Your task to perform on an android device: Search for custom wallets on Etsy. Image 0: 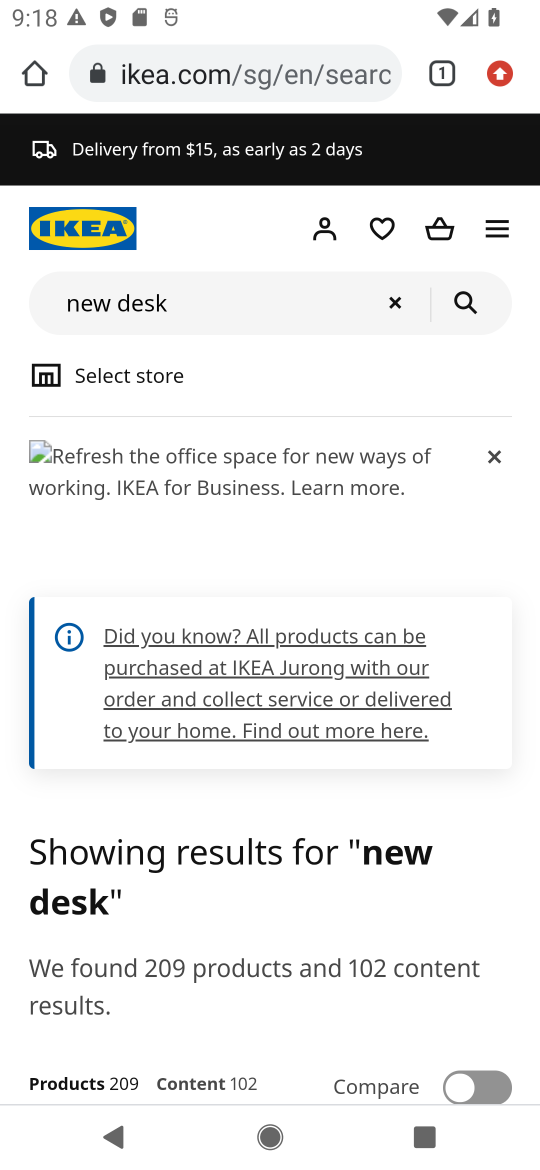
Step 0: press home button
Your task to perform on an android device: Search for custom wallets on Etsy. Image 1: 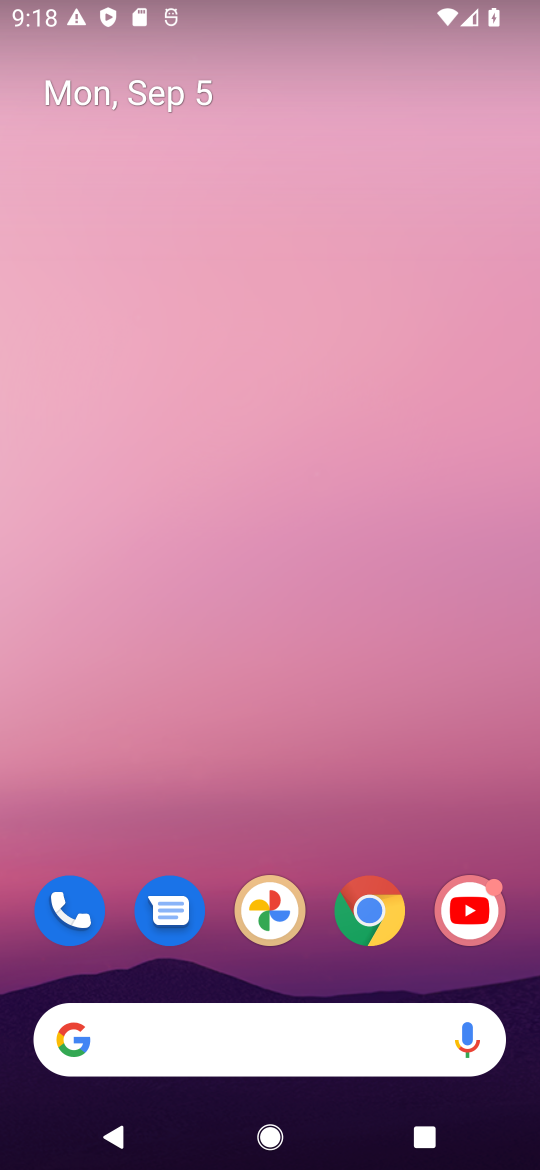
Step 1: click (377, 937)
Your task to perform on an android device: Search for custom wallets on Etsy. Image 2: 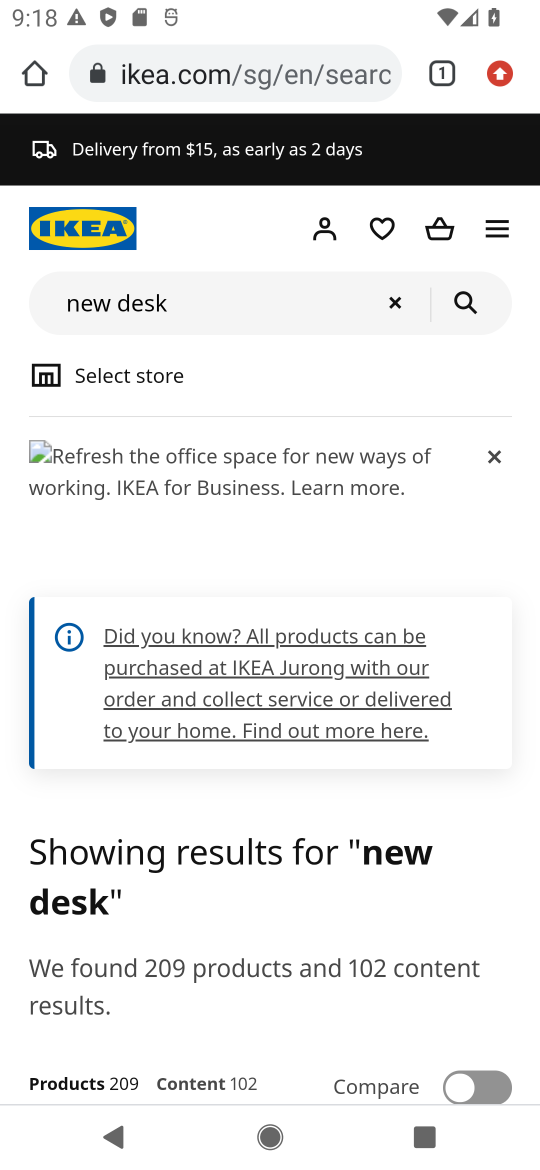
Step 2: click (281, 77)
Your task to perform on an android device: Search for custom wallets on Etsy. Image 3: 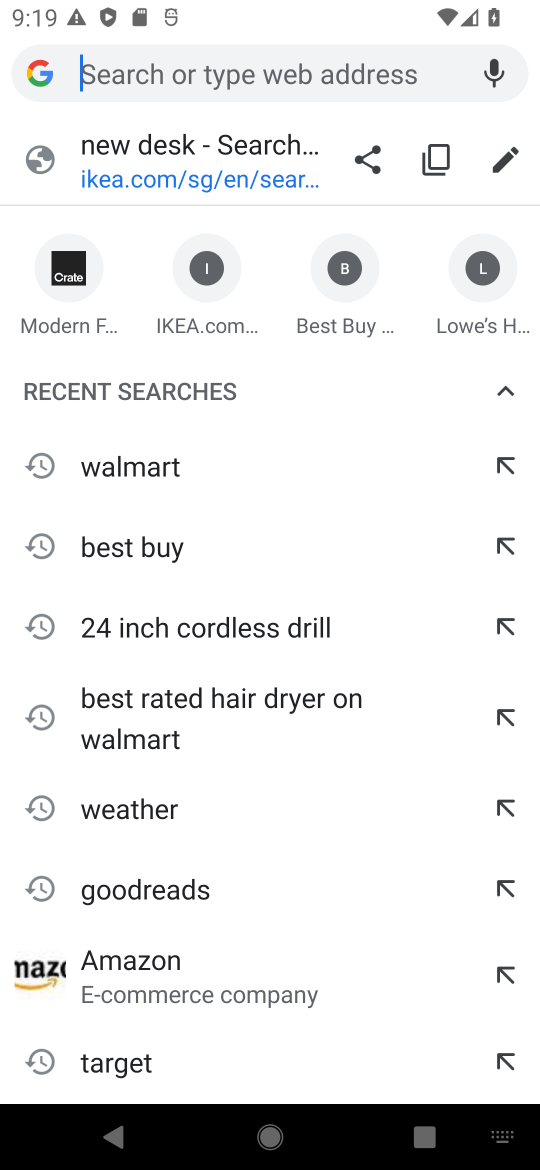
Step 3: type "etsy"
Your task to perform on an android device: Search for custom wallets on Etsy. Image 4: 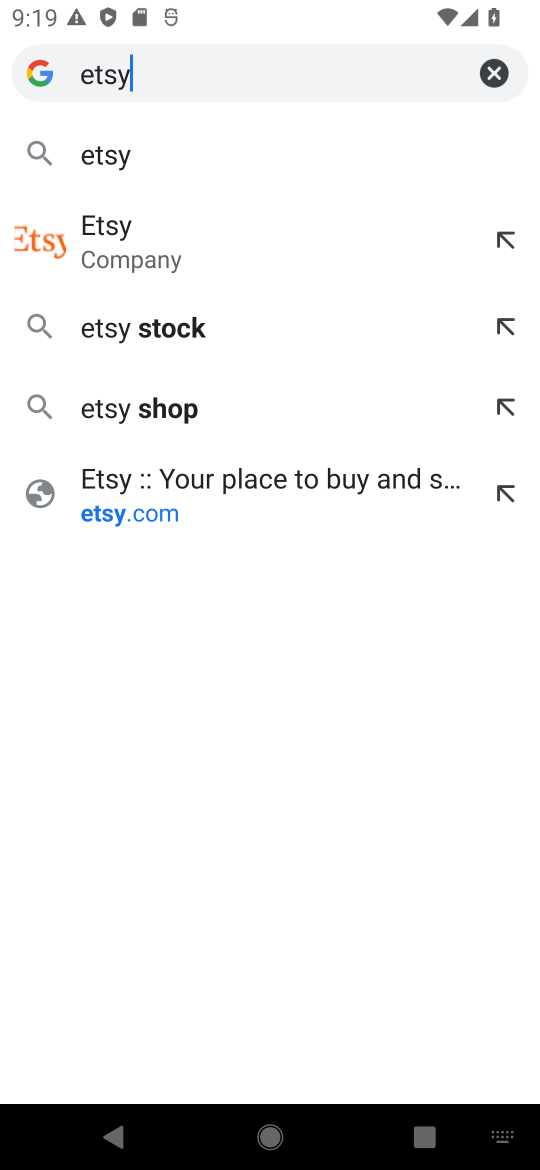
Step 4: click (170, 485)
Your task to perform on an android device: Search for custom wallets on Etsy. Image 5: 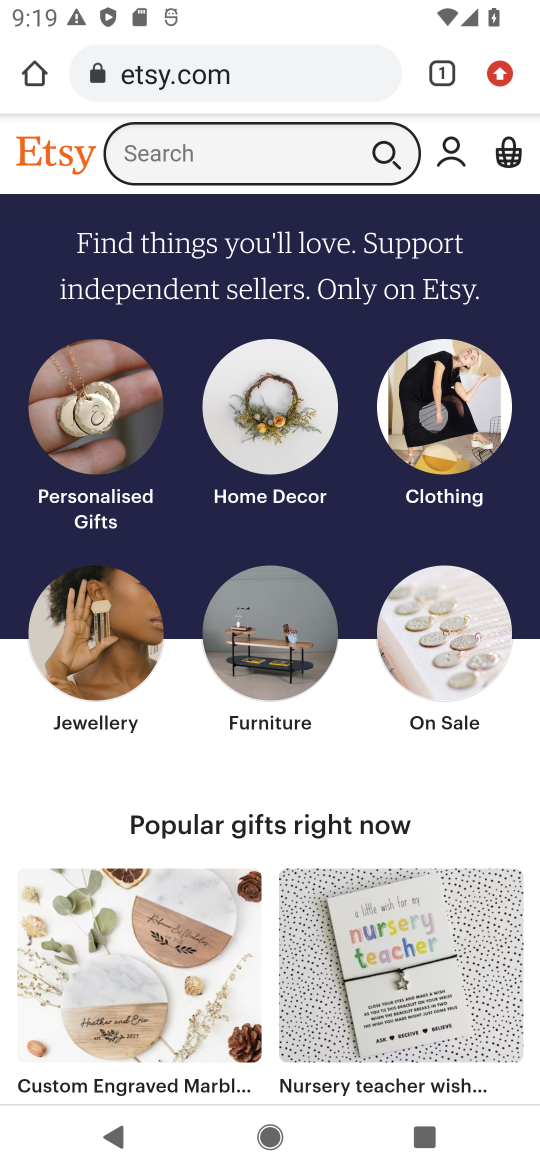
Step 5: click (238, 157)
Your task to perform on an android device: Search for custom wallets on Etsy. Image 6: 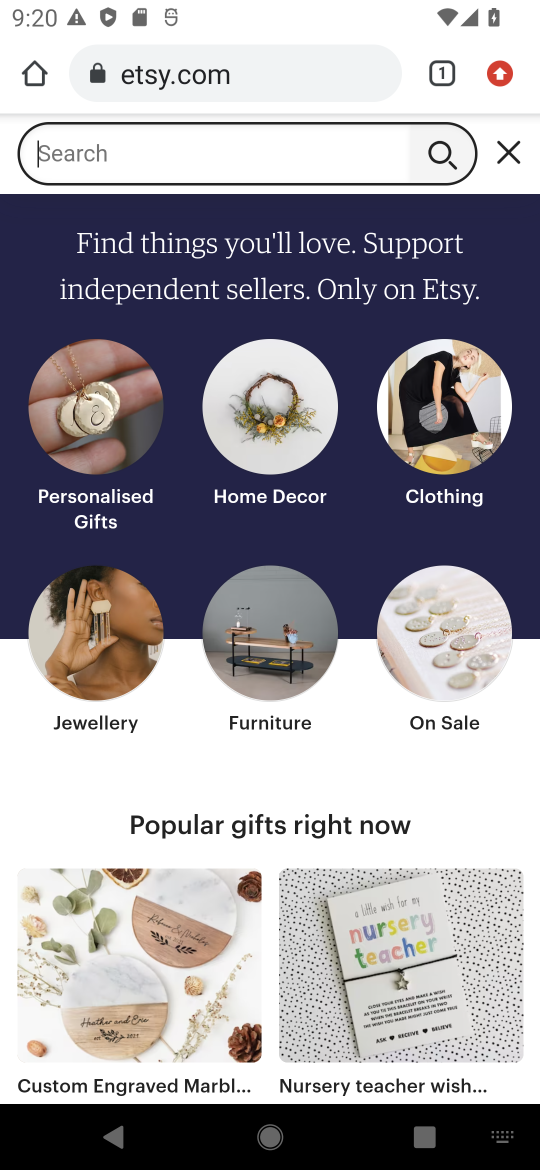
Step 6: click (275, 147)
Your task to perform on an android device: Search for custom wallets on Etsy. Image 7: 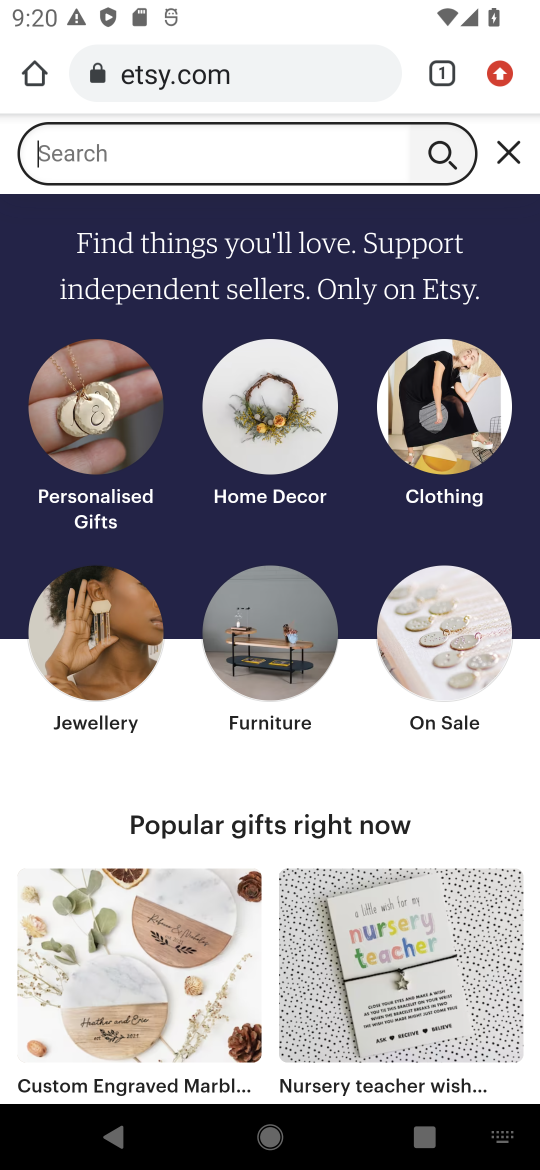
Step 7: type "custom wallet"
Your task to perform on an android device: Search for custom wallets on Etsy. Image 8: 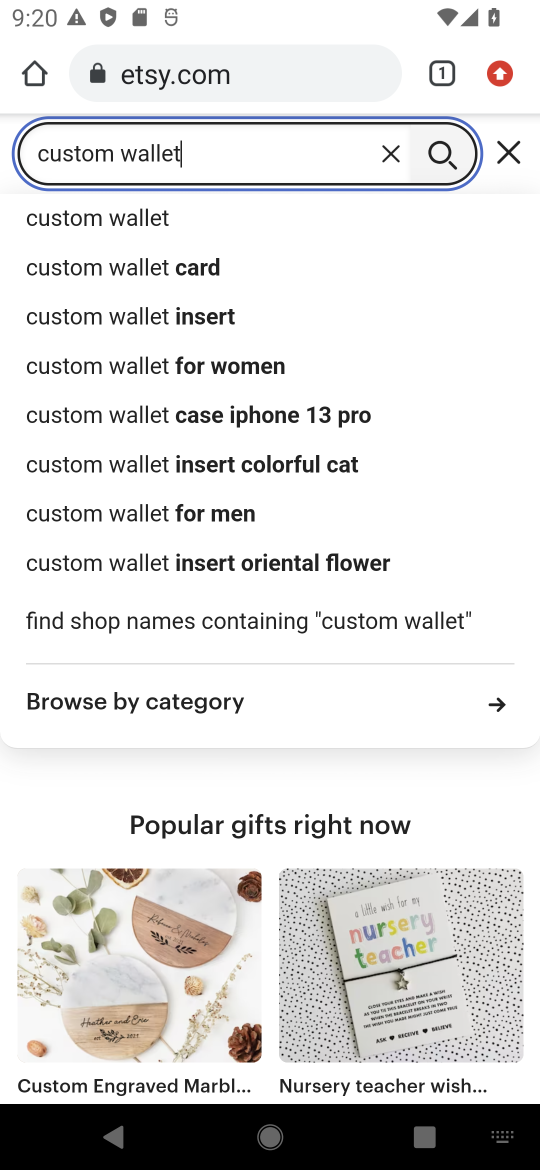
Step 8: click (125, 220)
Your task to perform on an android device: Search for custom wallets on Etsy. Image 9: 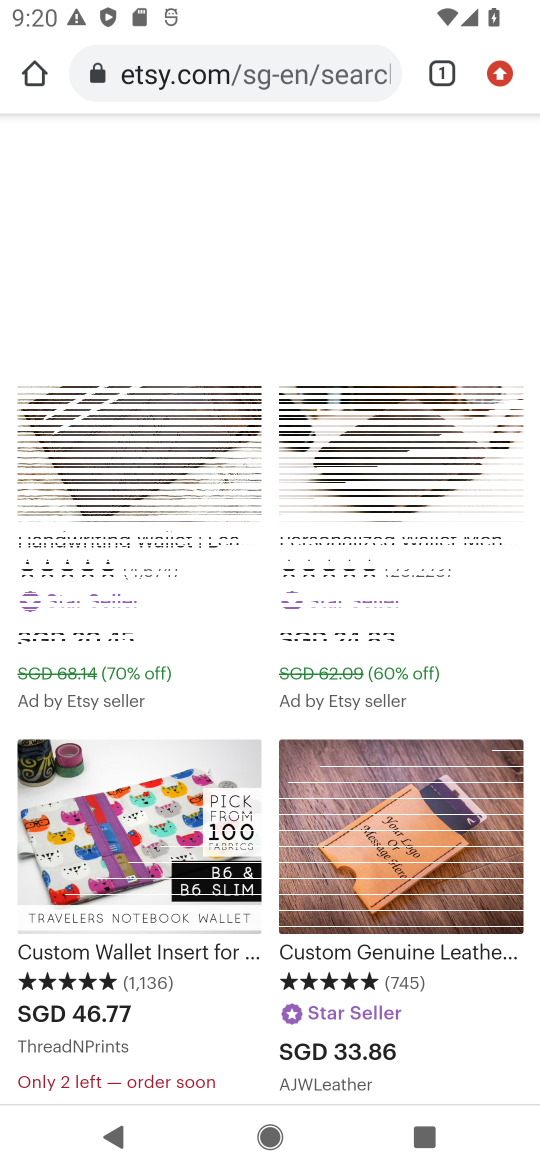
Step 9: task complete